Your task to perform on an android device: turn on translation in the chrome app Image 0: 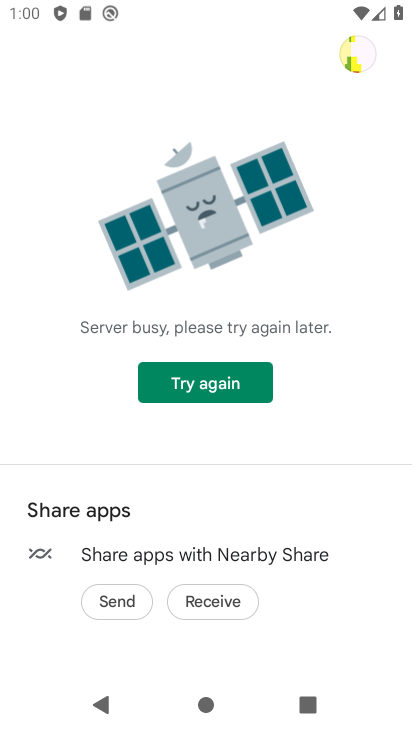
Step 0: press home button
Your task to perform on an android device: turn on translation in the chrome app Image 1: 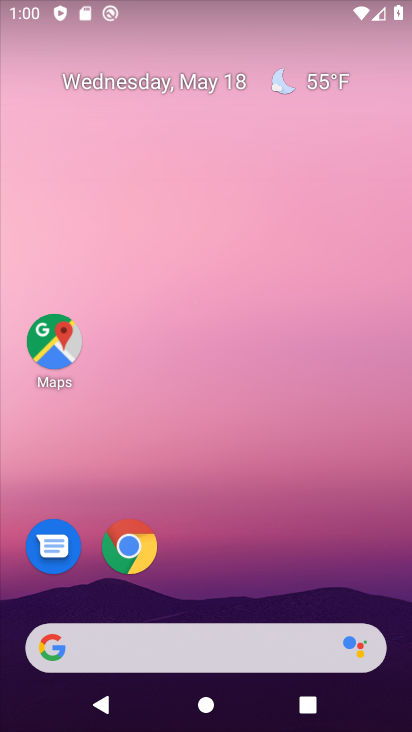
Step 1: drag from (394, 534) to (367, 219)
Your task to perform on an android device: turn on translation in the chrome app Image 2: 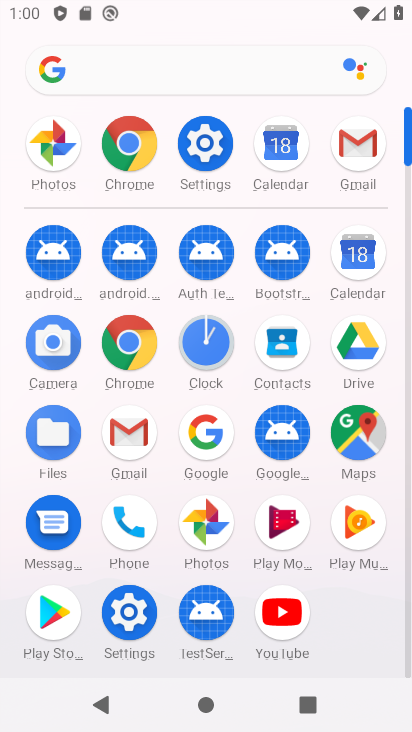
Step 2: click (135, 358)
Your task to perform on an android device: turn on translation in the chrome app Image 3: 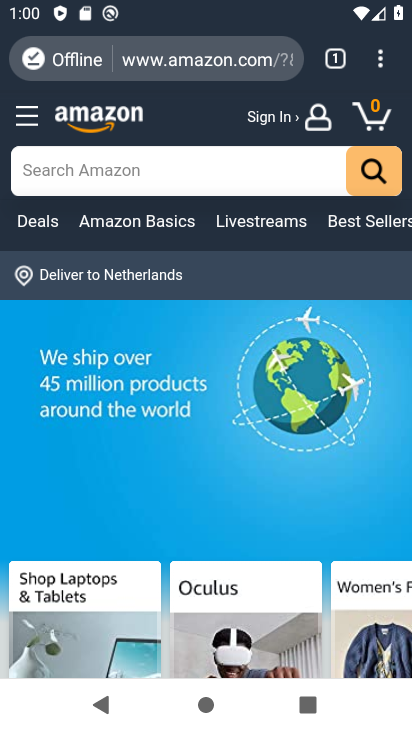
Step 3: drag from (383, 76) to (255, 554)
Your task to perform on an android device: turn on translation in the chrome app Image 4: 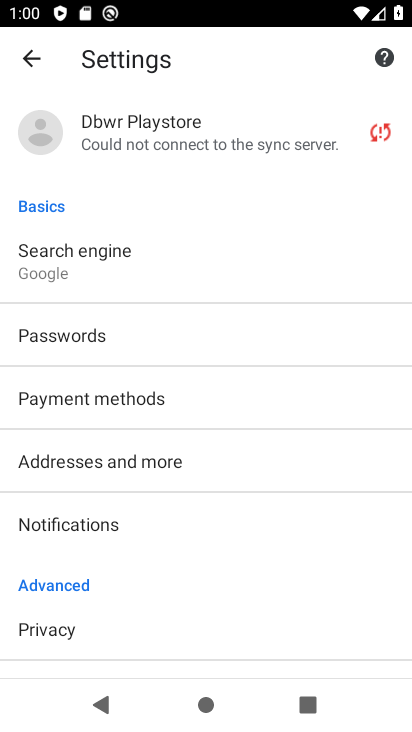
Step 4: drag from (217, 592) to (248, 309)
Your task to perform on an android device: turn on translation in the chrome app Image 5: 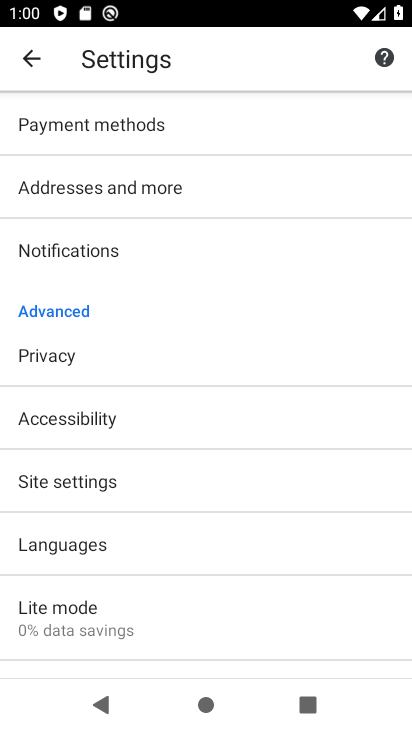
Step 5: drag from (202, 638) to (266, 391)
Your task to perform on an android device: turn on translation in the chrome app Image 6: 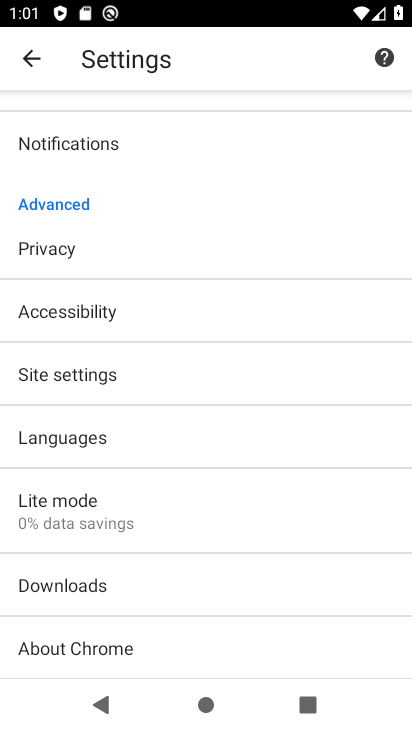
Step 6: click (93, 437)
Your task to perform on an android device: turn on translation in the chrome app Image 7: 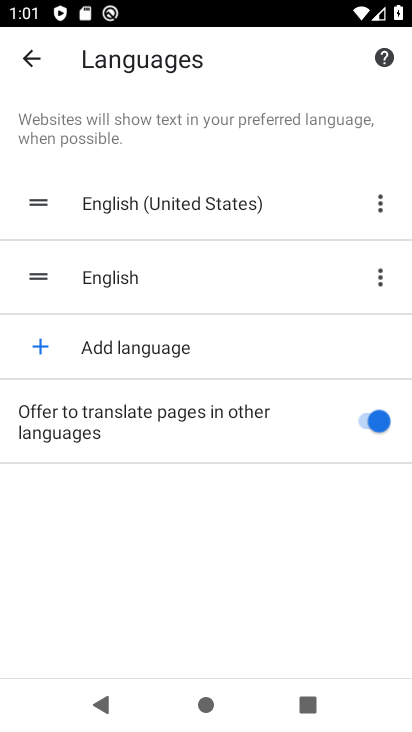
Step 7: task complete